Your task to perform on an android device: turn on wifi Image 0: 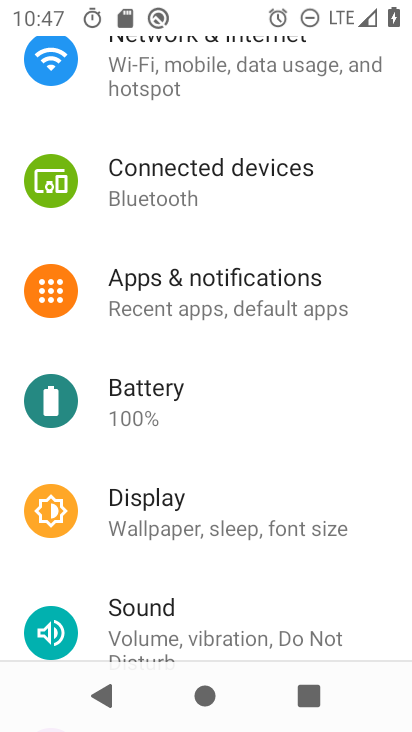
Step 0: drag from (240, 151) to (233, 557)
Your task to perform on an android device: turn on wifi Image 1: 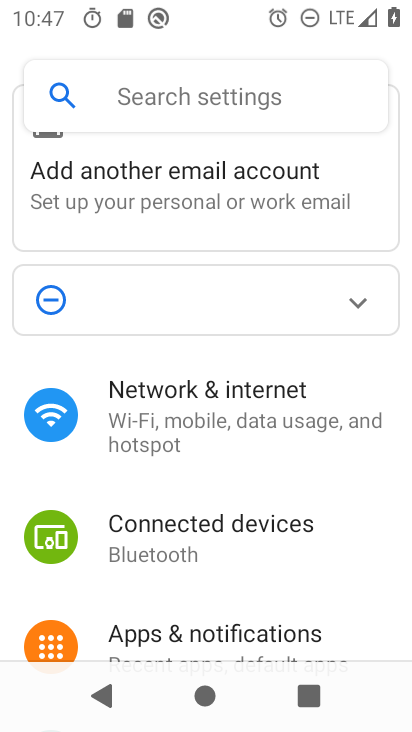
Step 1: click (204, 420)
Your task to perform on an android device: turn on wifi Image 2: 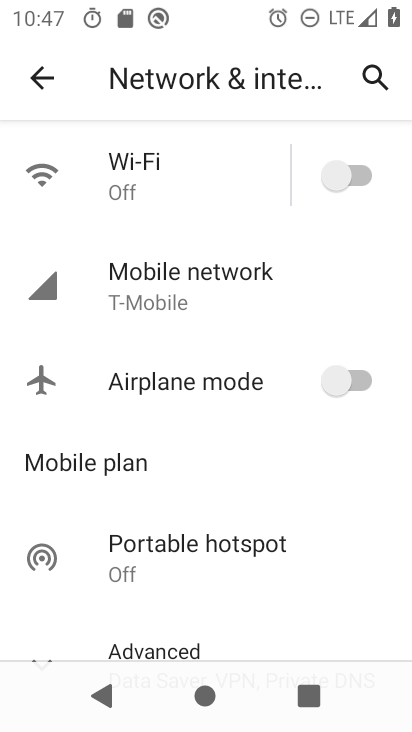
Step 2: click (328, 175)
Your task to perform on an android device: turn on wifi Image 3: 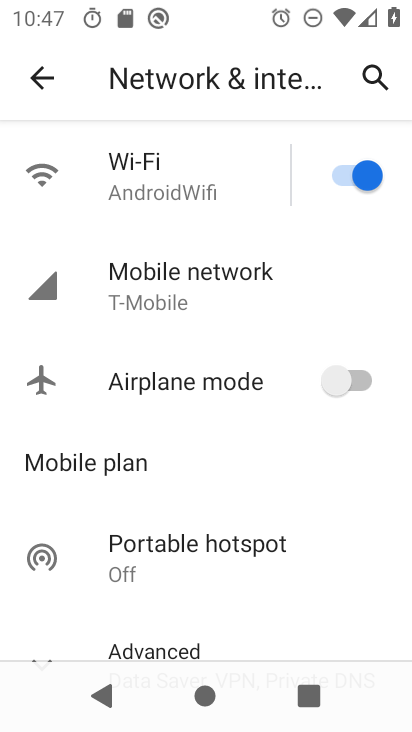
Step 3: task complete